Your task to perform on an android device: Open Yahoo.com Image 0: 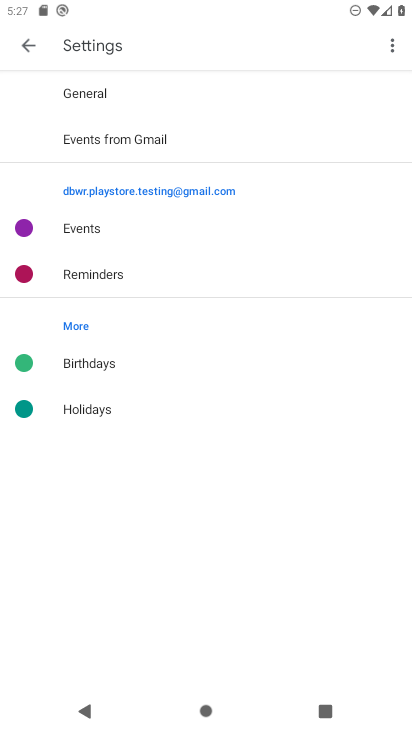
Step 0: press home button
Your task to perform on an android device: Open Yahoo.com Image 1: 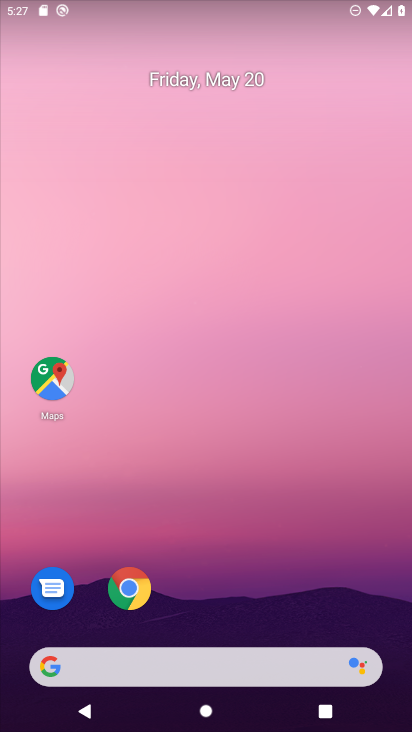
Step 1: click (129, 596)
Your task to perform on an android device: Open Yahoo.com Image 2: 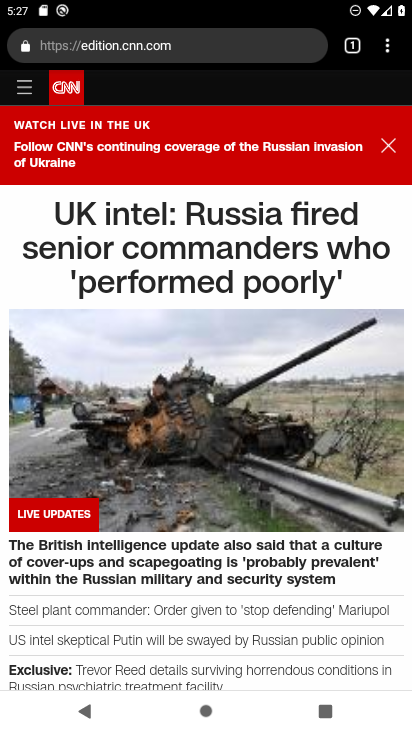
Step 2: press back button
Your task to perform on an android device: Open Yahoo.com Image 3: 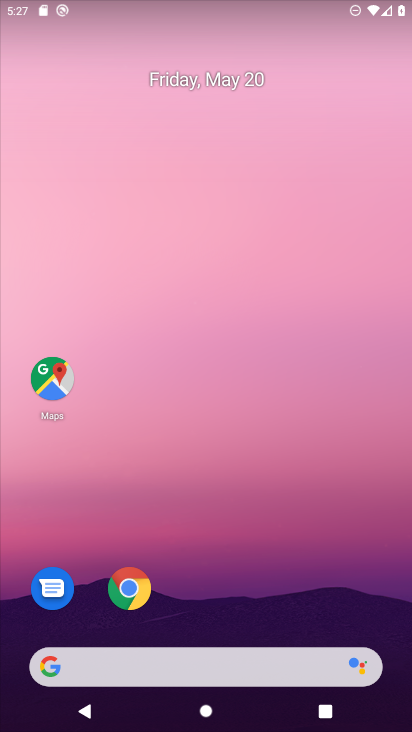
Step 3: click (133, 607)
Your task to perform on an android device: Open Yahoo.com Image 4: 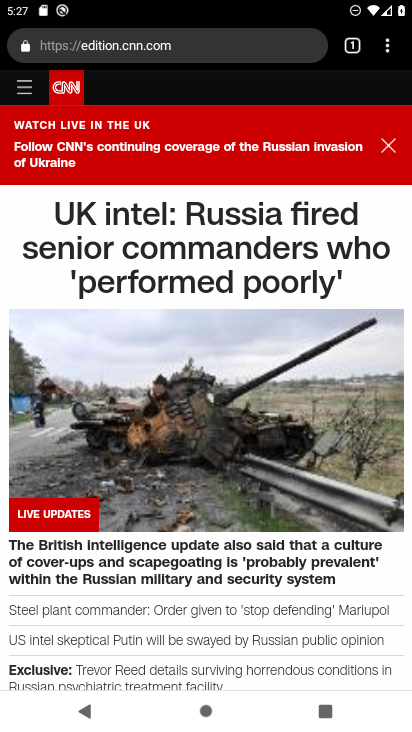
Step 4: press back button
Your task to perform on an android device: Open Yahoo.com Image 5: 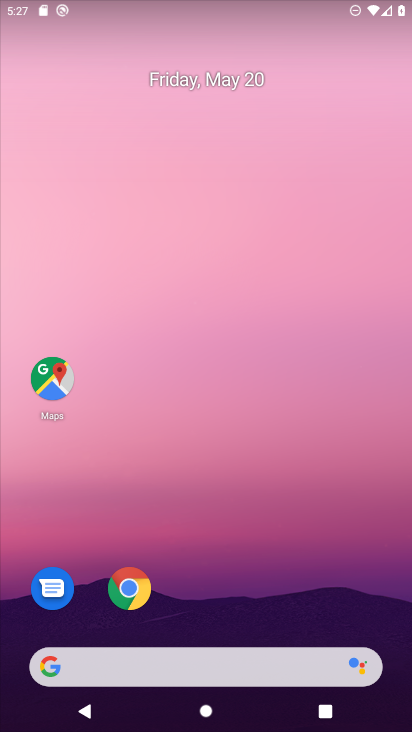
Step 5: click (140, 589)
Your task to perform on an android device: Open Yahoo.com Image 6: 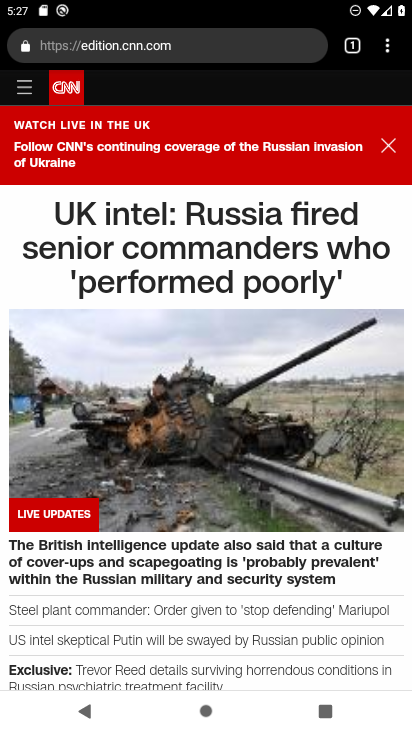
Step 6: click (129, 48)
Your task to perform on an android device: Open Yahoo.com Image 7: 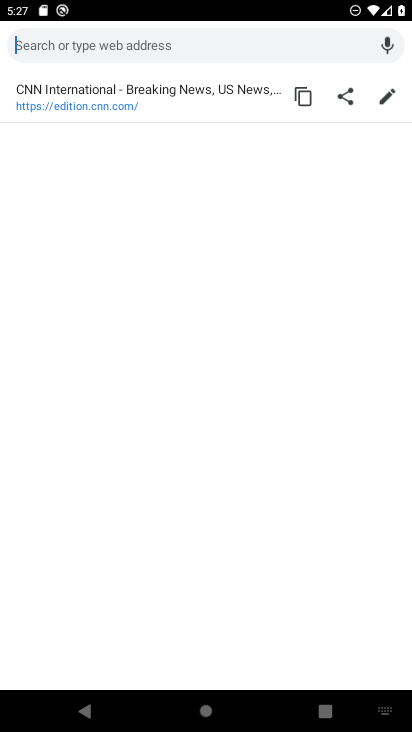
Step 7: press back button
Your task to perform on an android device: Open Yahoo.com Image 8: 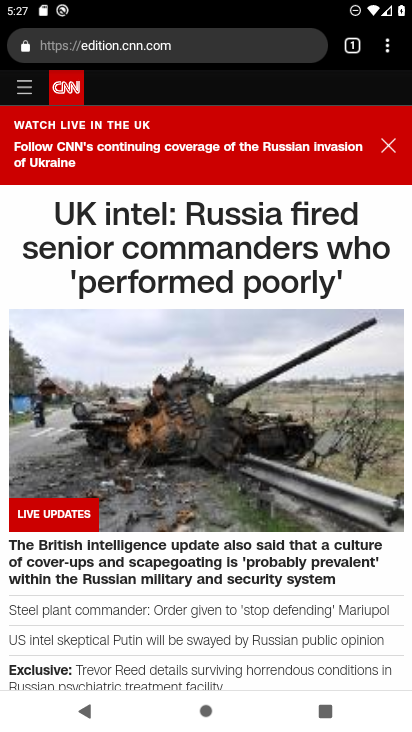
Step 8: click (165, 50)
Your task to perform on an android device: Open Yahoo.com Image 9: 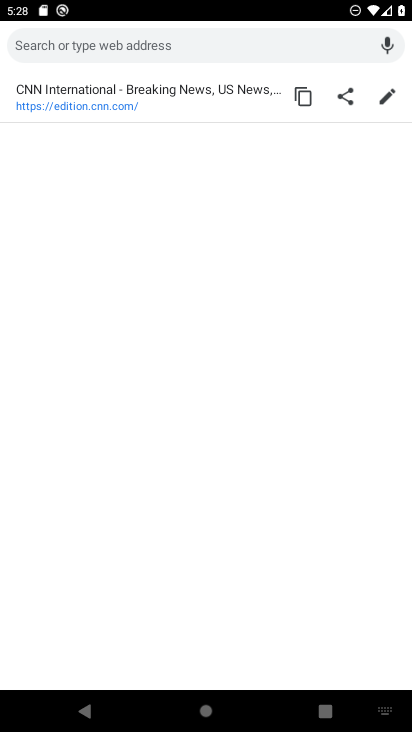
Step 9: type "www.yahoo.com"
Your task to perform on an android device: Open Yahoo.com Image 10: 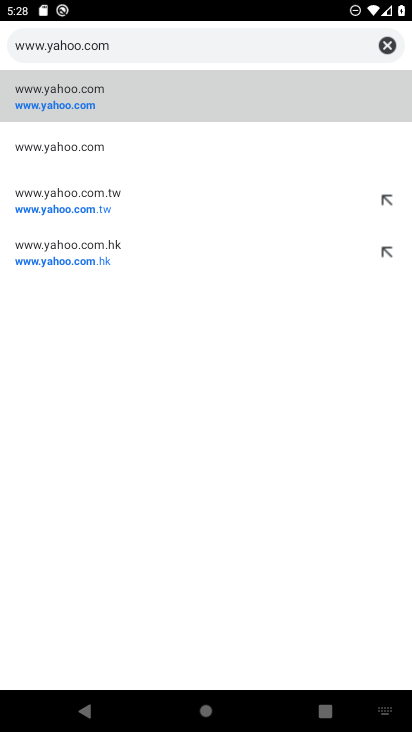
Step 10: click (94, 103)
Your task to perform on an android device: Open Yahoo.com Image 11: 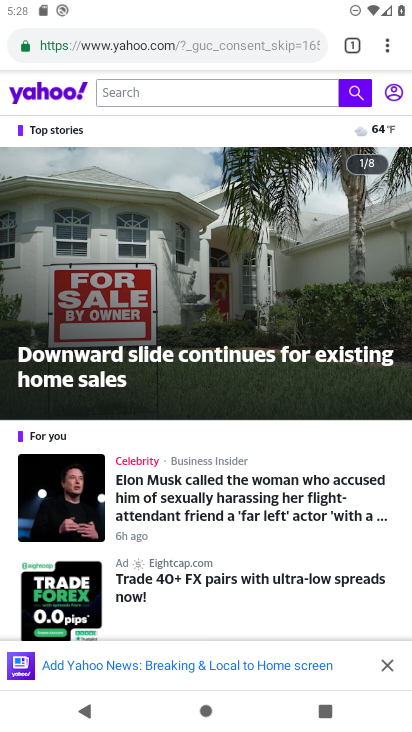
Step 11: task complete